Your task to perform on an android device: turn off sleep mode Image 0: 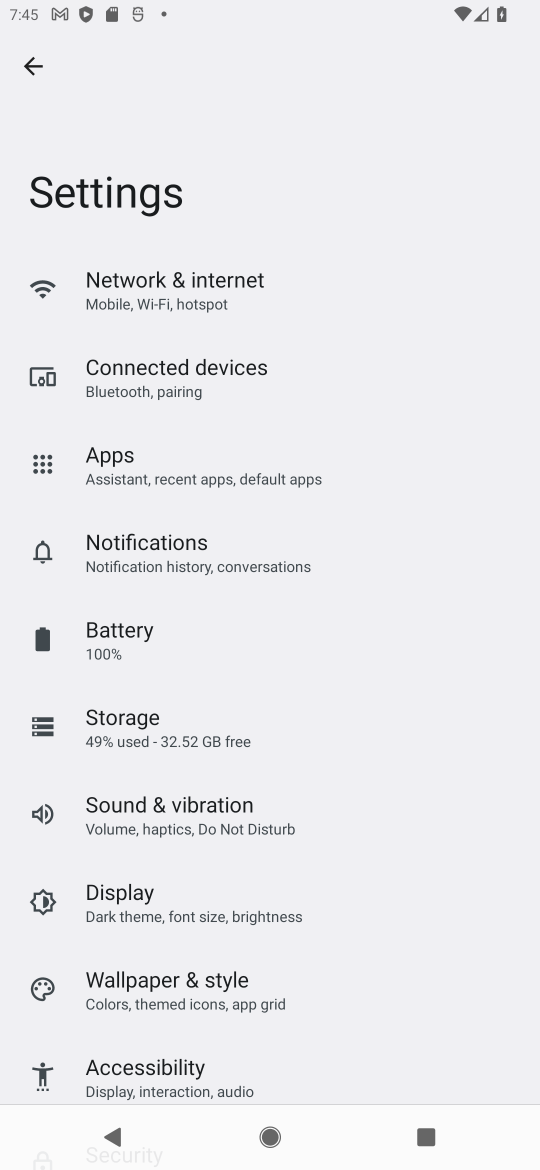
Step 0: click (183, 909)
Your task to perform on an android device: turn off sleep mode Image 1: 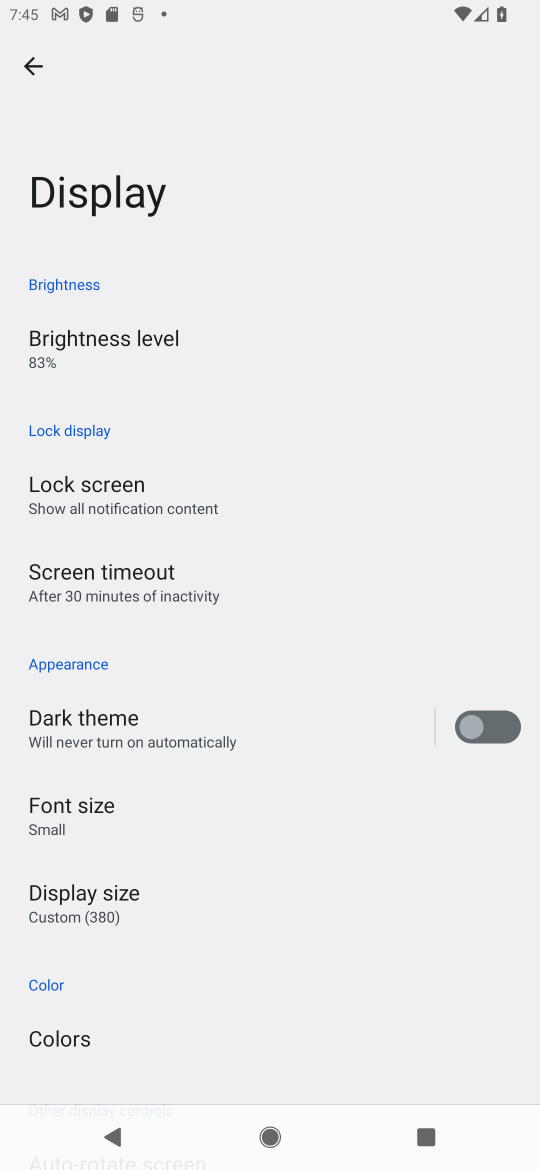
Step 1: task complete